Your task to perform on an android device: install app "Microsoft Excel" Image 0: 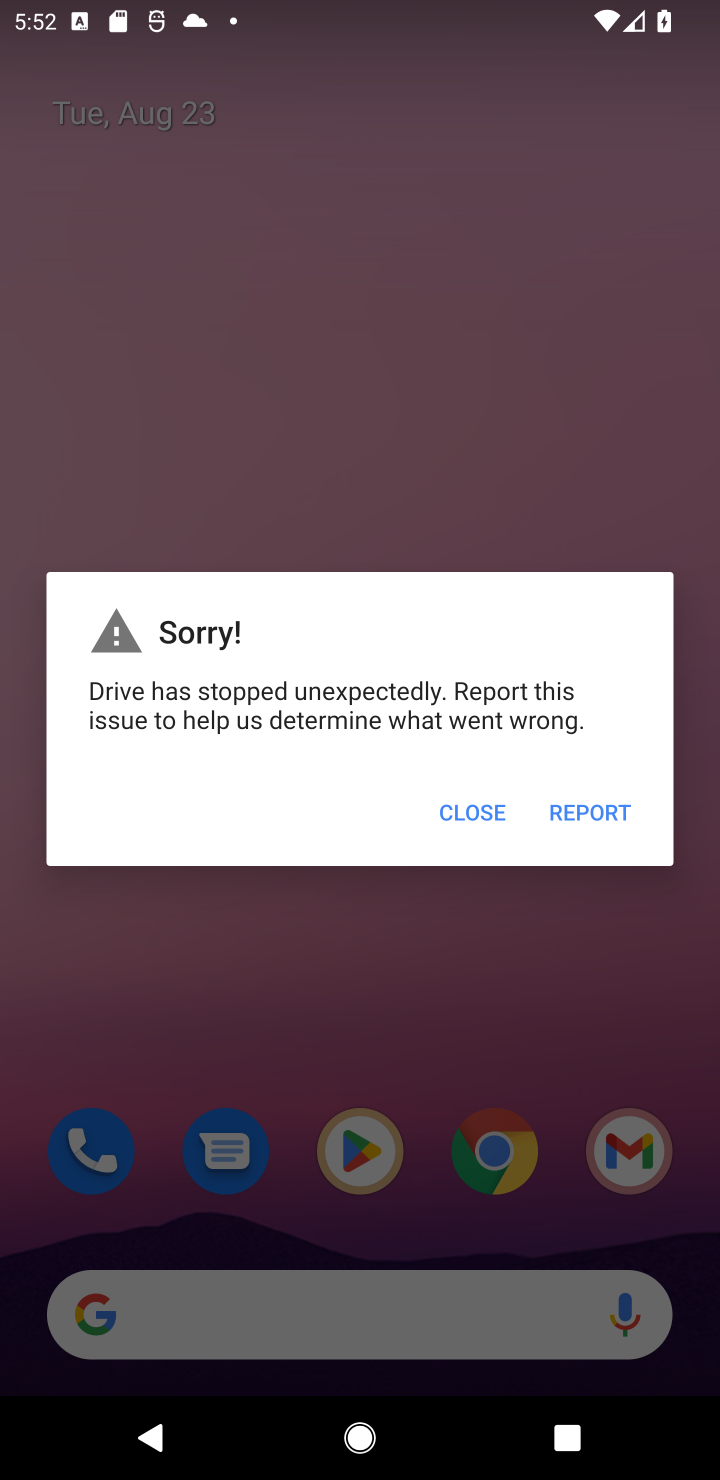
Step 0: press home button
Your task to perform on an android device: install app "Microsoft Excel" Image 1: 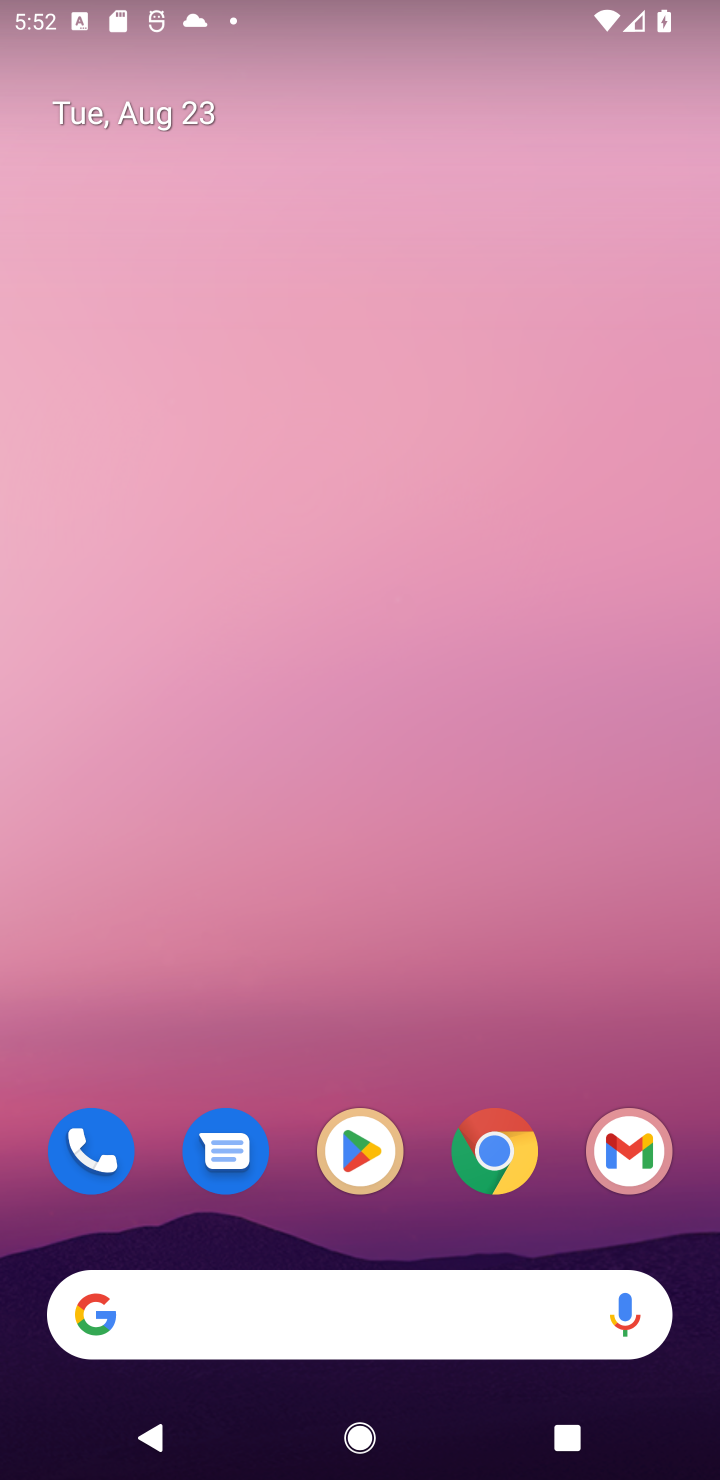
Step 1: click (368, 1154)
Your task to perform on an android device: install app "Microsoft Excel" Image 2: 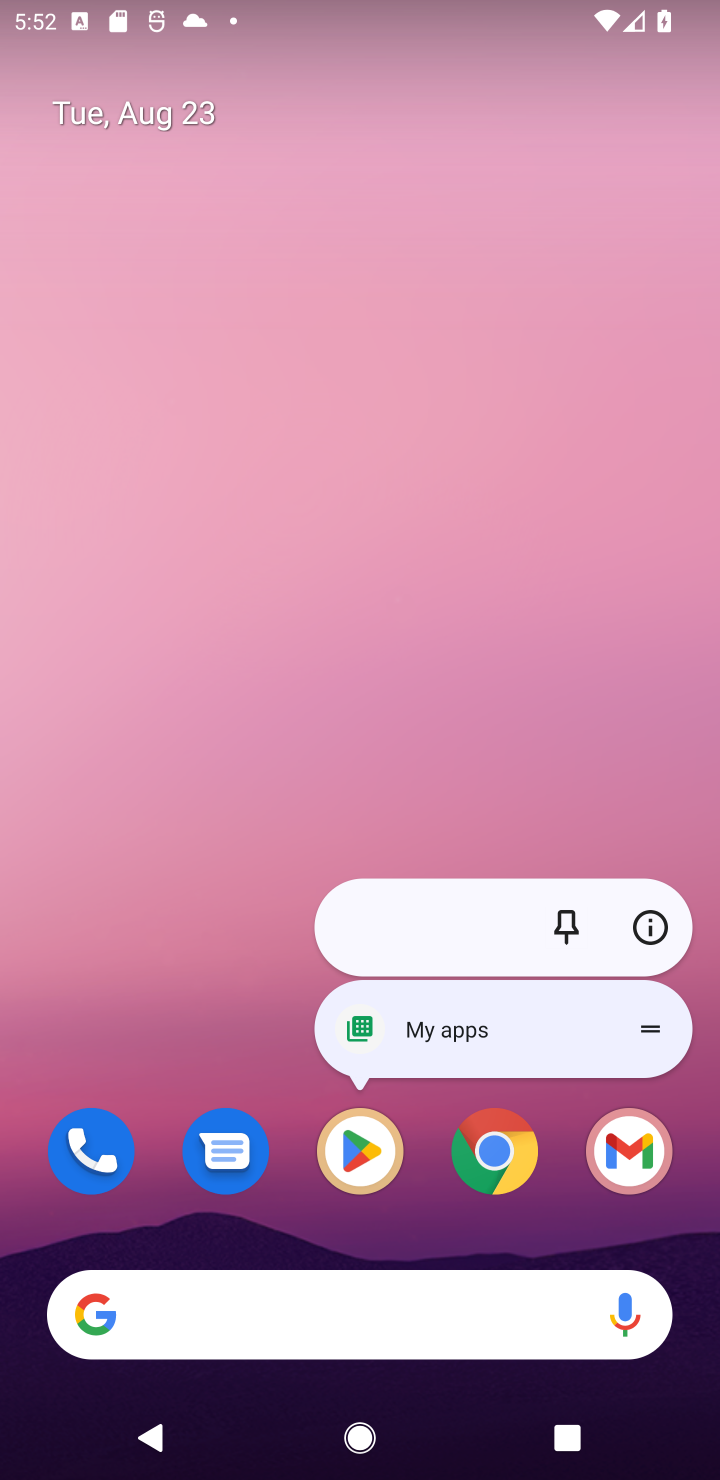
Step 2: click (353, 1159)
Your task to perform on an android device: install app "Microsoft Excel" Image 3: 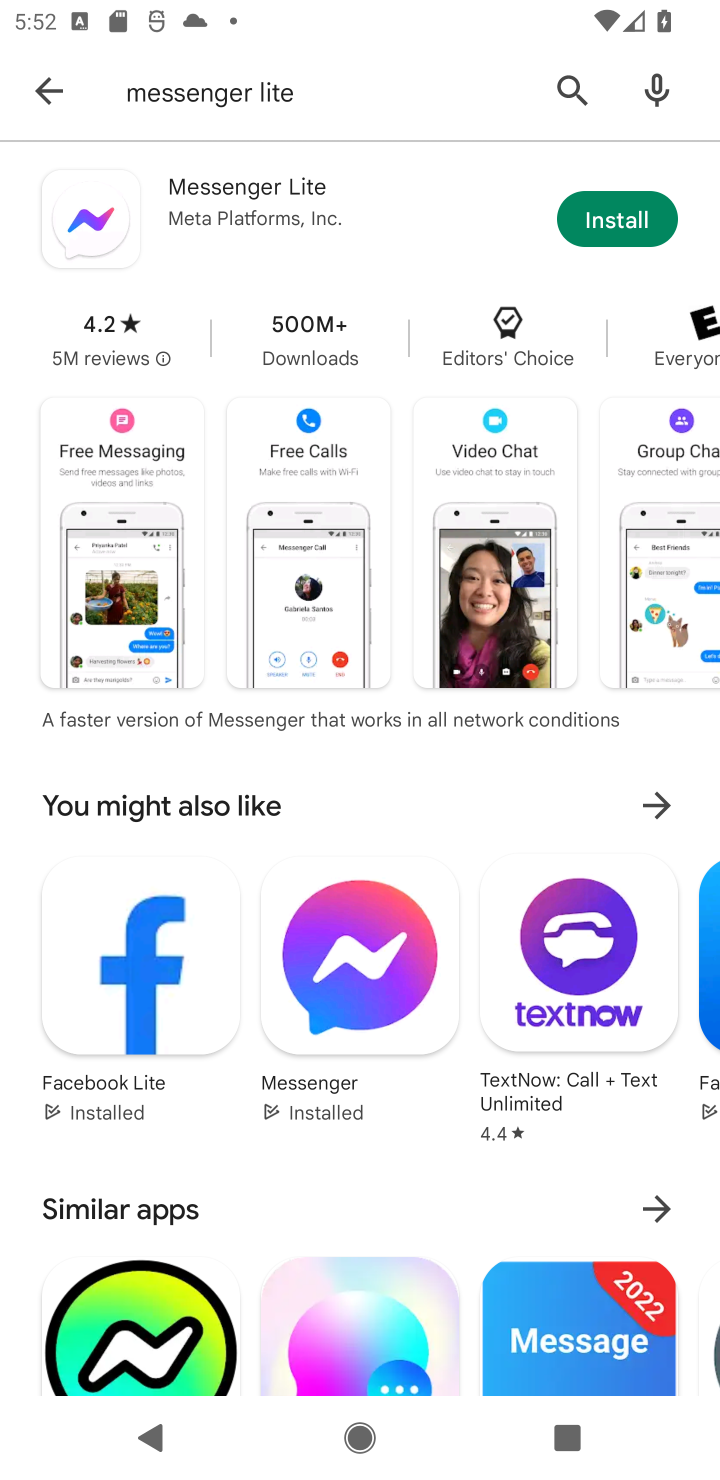
Step 3: click (558, 84)
Your task to perform on an android device: install app "Microsoft Excel" Image 4: 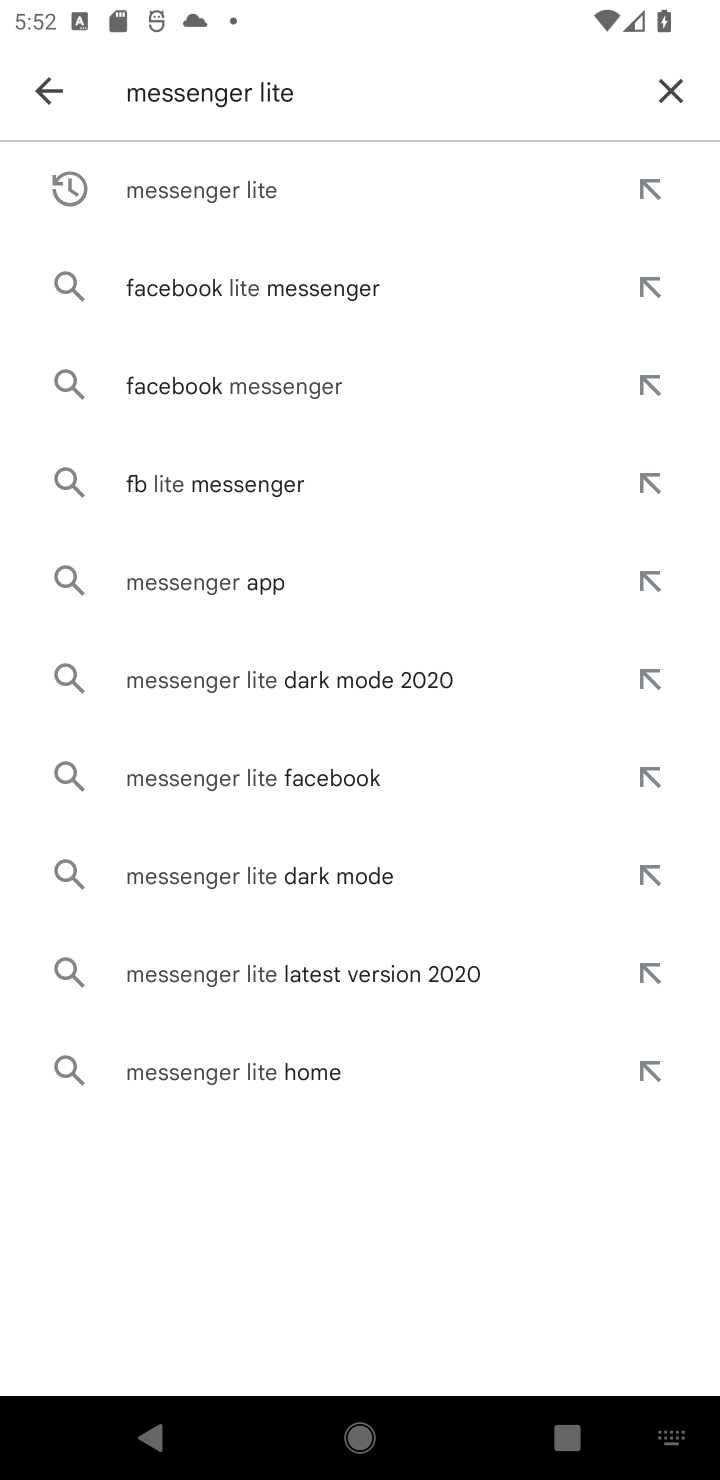
Step 4: click (661, 80)
Your task to perform on an android device: install app "Microsoft Excel" Image 5: 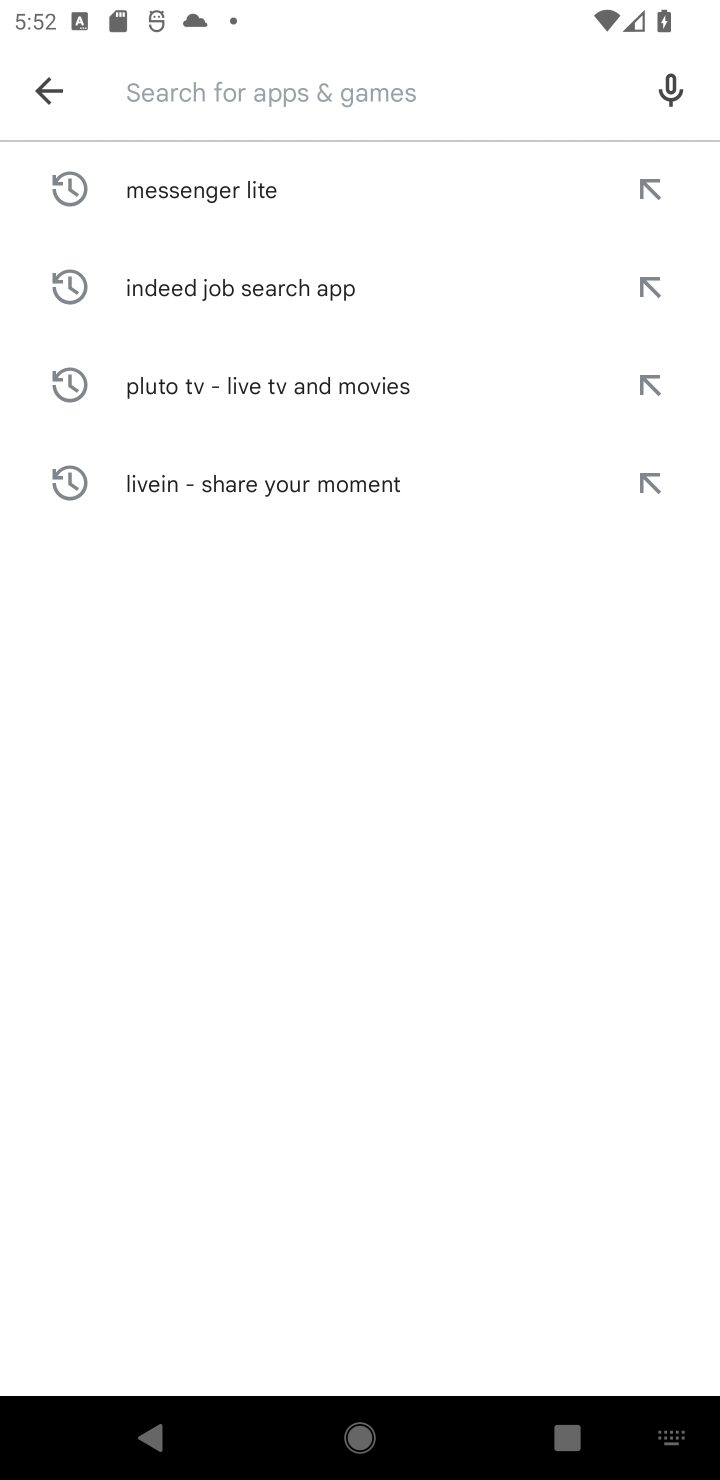
Step 5: type "Microsoft Excel"
Your task to perform on an android device: install app "Microsoft Excel" Image 6: 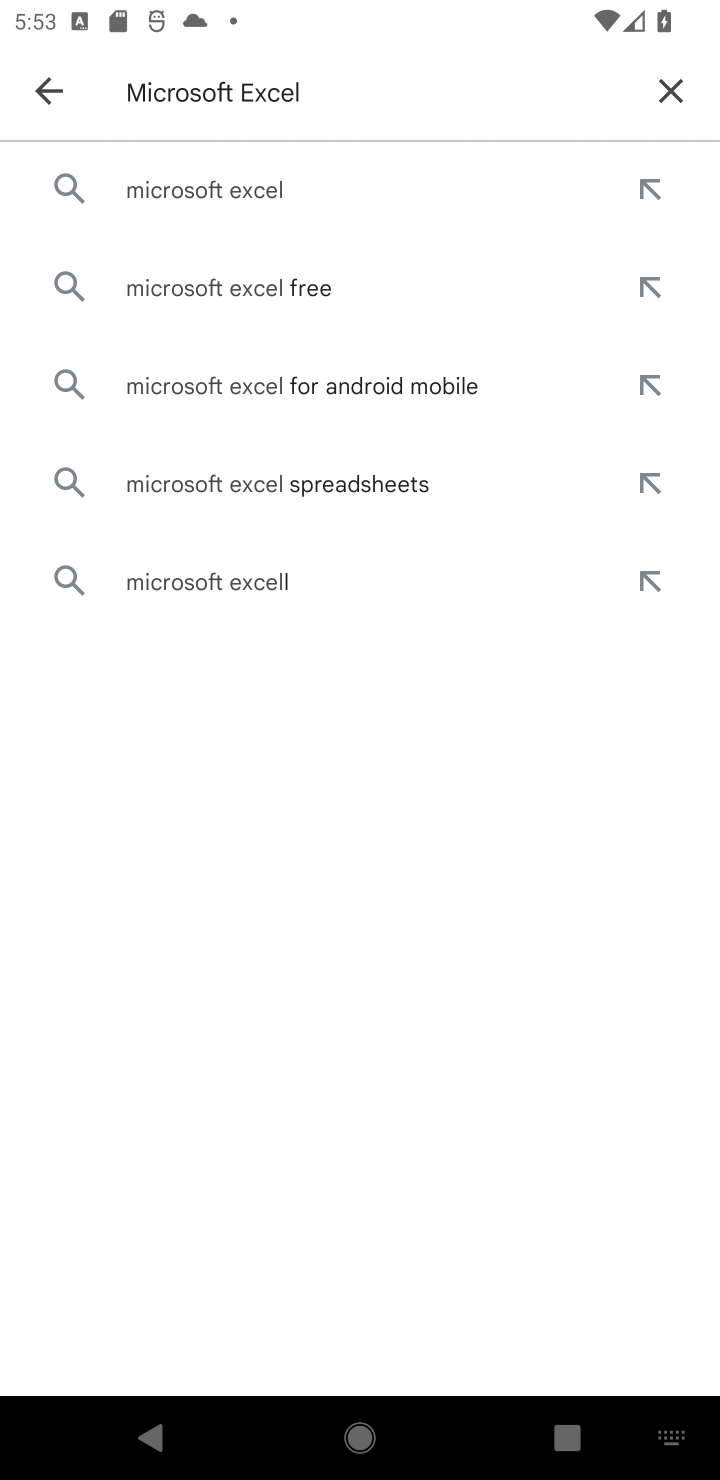
Step 6: click (255, 184)
Your task to perform on an android device: install app "Microsoft Excel" Image 7: 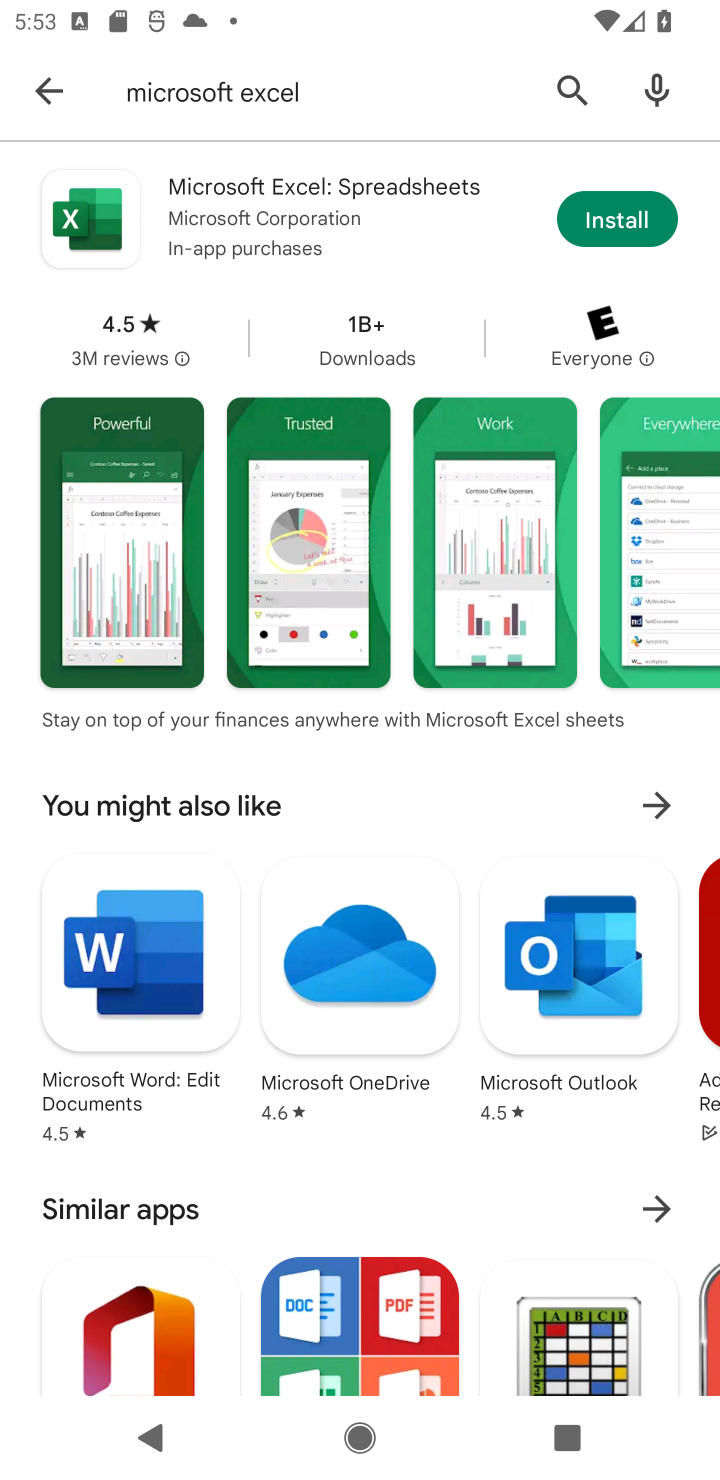
Step 7: click (620, 224)
Your task to perform on an android device: install app "Microsoft Excel" Image 8: 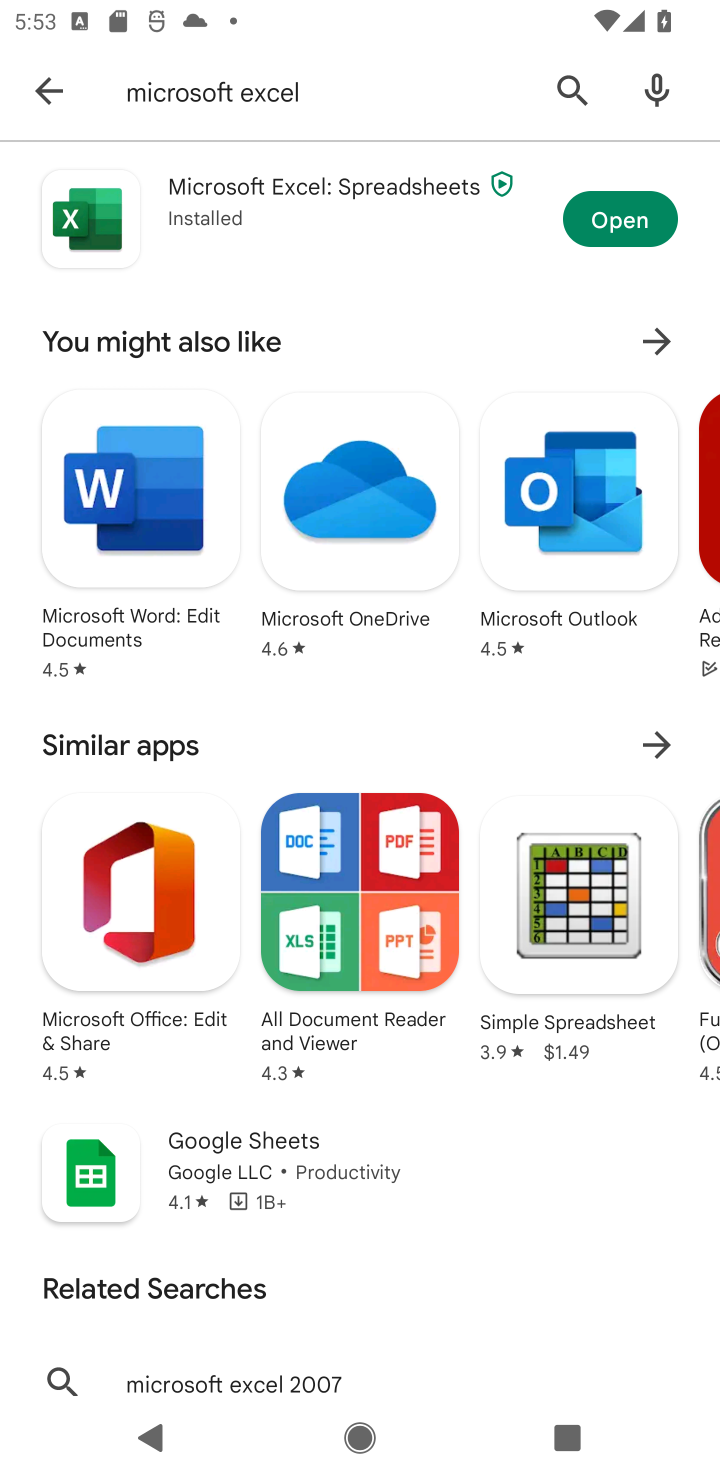
Step 8: task complete